Your task to perform on an android device: When is my next appointment? Image 0: 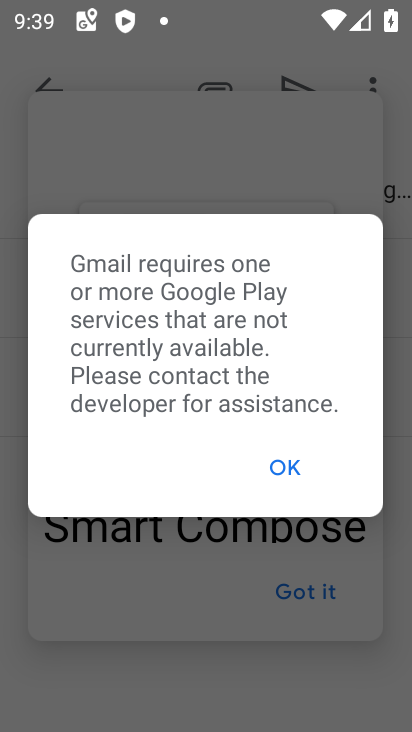
Step 0: press home button
Your task to perform on an android device: When is my next appointment? Image 1: 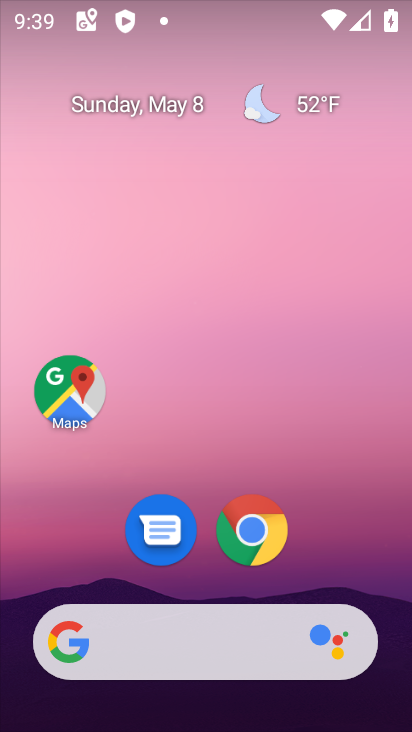
Step 1: drag from (370, 586) to (371, 90)
Your task to perform on an android device: When is my next appointment? Image 2: 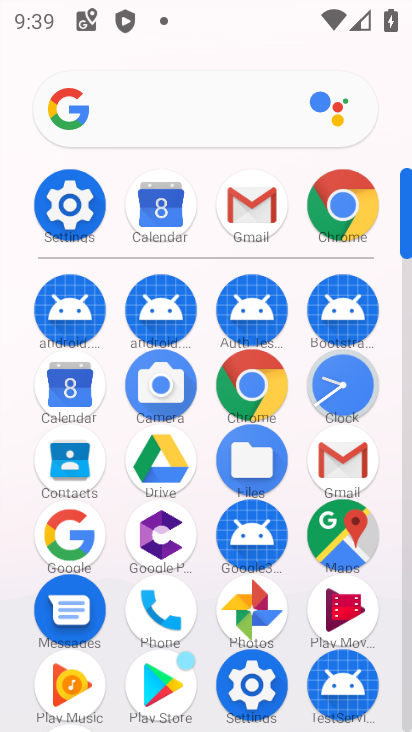
Step 2: click (63, 387)
Your task to perform on an android device: When is my next appointment? Image 3: 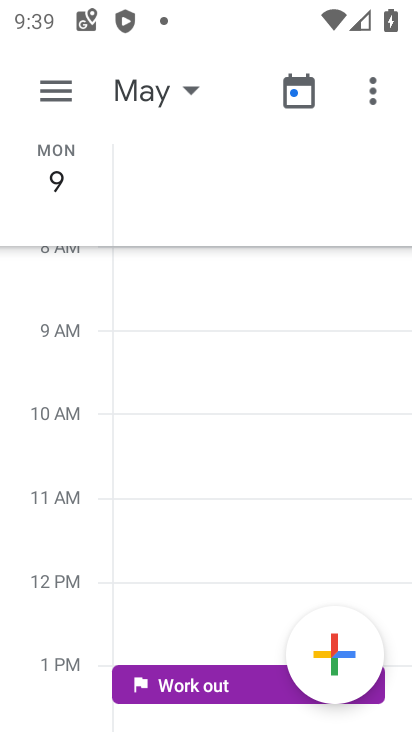
Step 3: click (141, 87)
Your task to perform on an android device: When is my next appointment? Image 4: 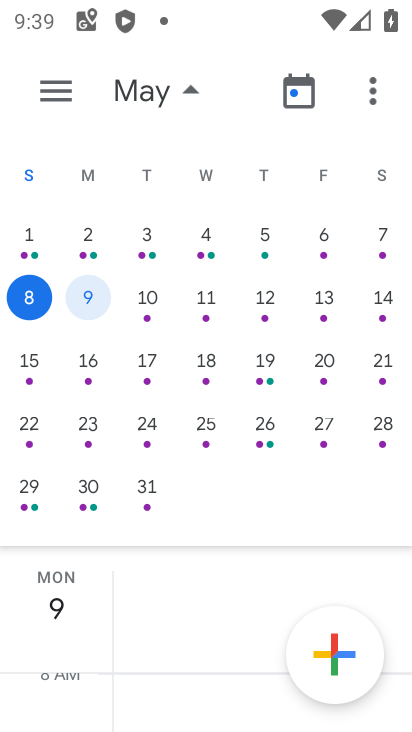
Step 4: drag from (137, 641) to (184, 383)
Your task to perform on an android device: When is my next appointment? Image 5: 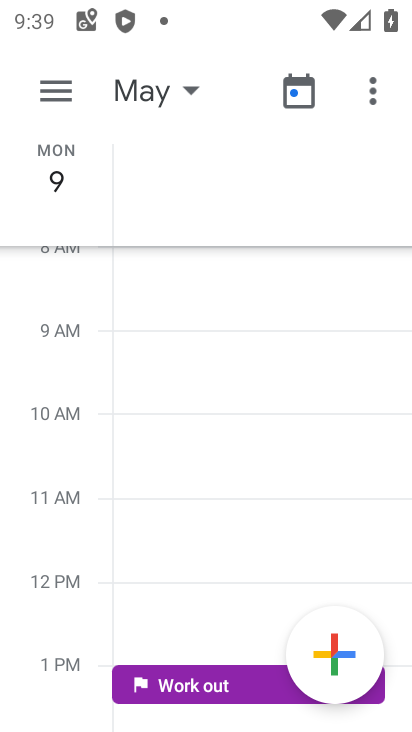
Step 5: drag from (154, 623) to (189, 382)
Your task to perform on an android device: When is my next appointment? Image 6: 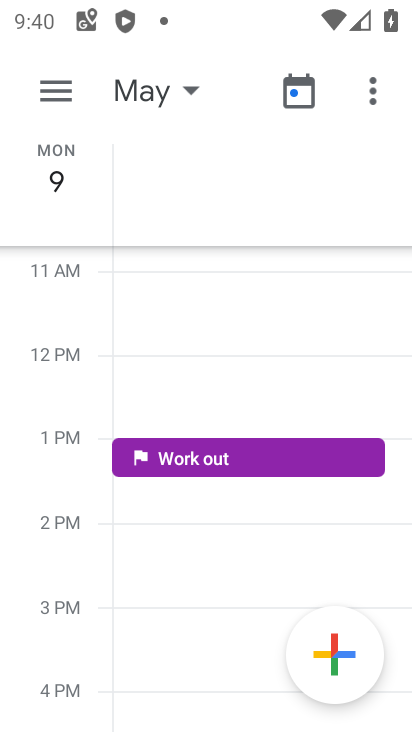
Step 6: drag from (138, 586) to (177, 328)
Your task to perform on an android device: When is my next appointment? Image 7: 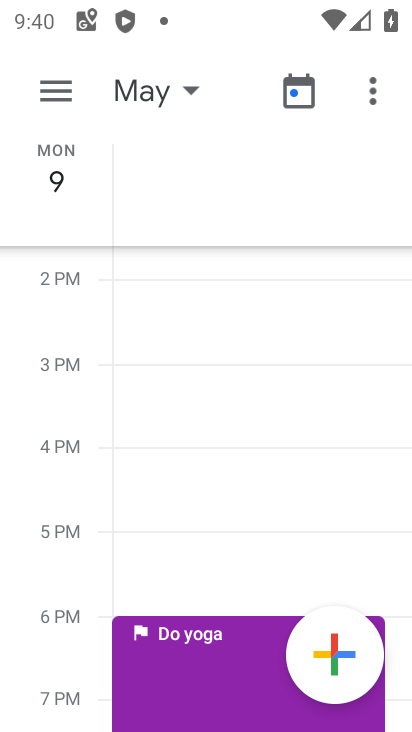
Step 7: drag from (129, 612) to (172, 350)
Your task to perform on an android device: When is my next appointment? Image 8: 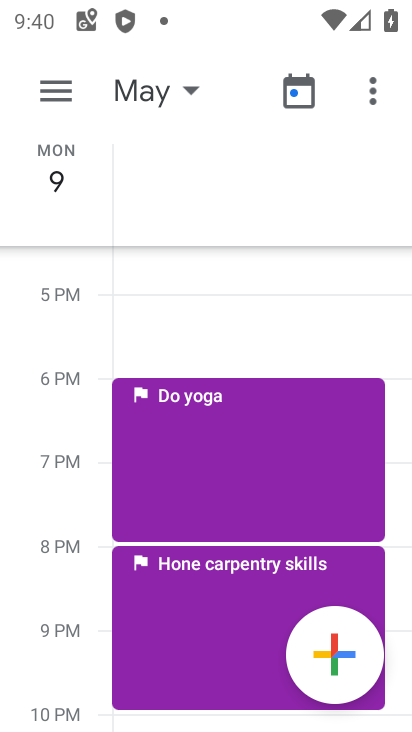
Step 8: drag from (142, 670) to (192, 289)
Your task to perform on an android device: When is my next appointment? Image 9: 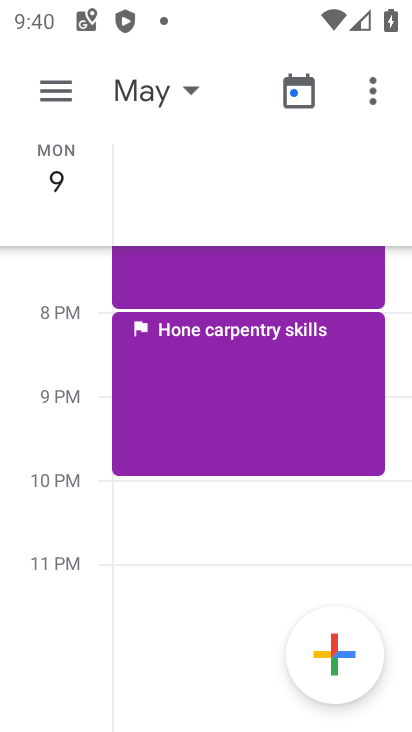
Step 9: drag from (192, 608) to (202, 402)
Your task to perform on an android device: When is my next appointment? Image 10: 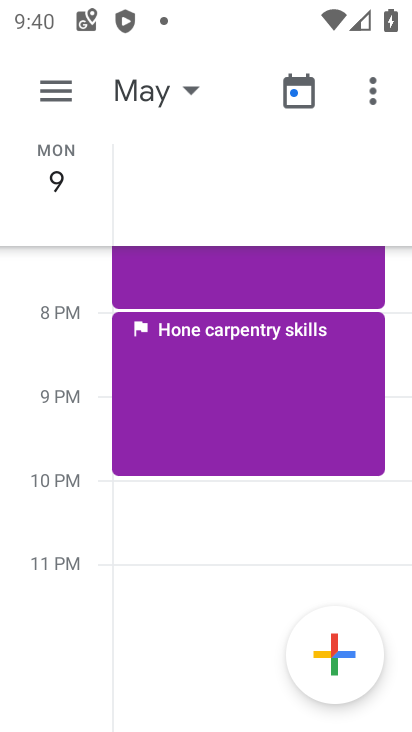
Step 10: drag from (171, 659) to (204, 374)
Your task to perform on an android device: When is my next appointment? Image 11: 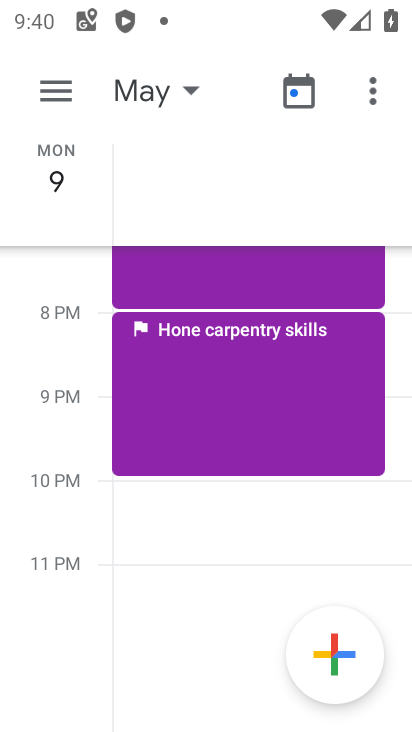
Step 11: drag from (175, 668) to (185, 374)
Your task to perform on an android device: When is my next appointment? Image 12: 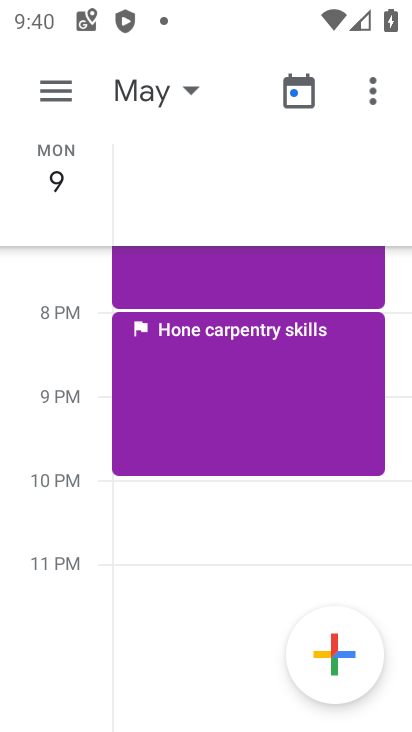
Step 12: click (135, 96)
Your task to perform on an android device: When is my next appointment? Image 13: 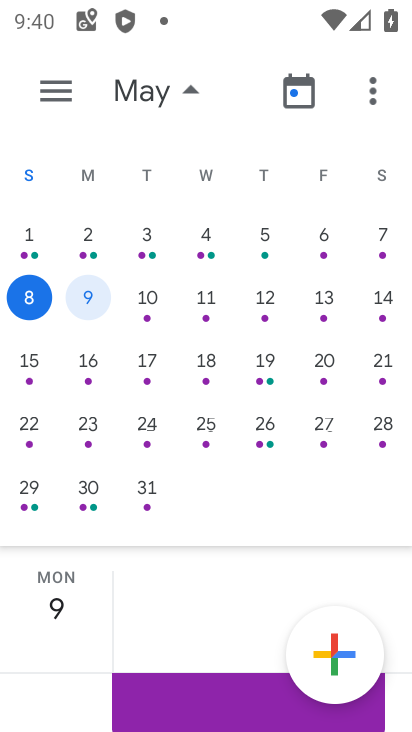
Step 13: click (43, 92)
Your task to perform on an android device: When is my next appointment? Image 14: 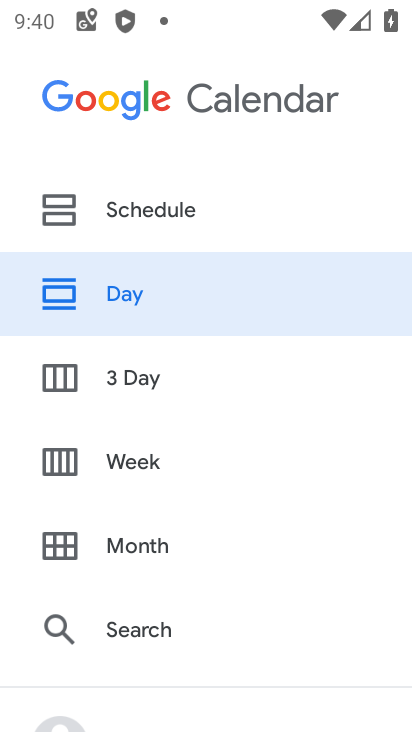
Step 14: click (221, 216)
Your task to perform on an android device: When is my next appointment? Image 15: 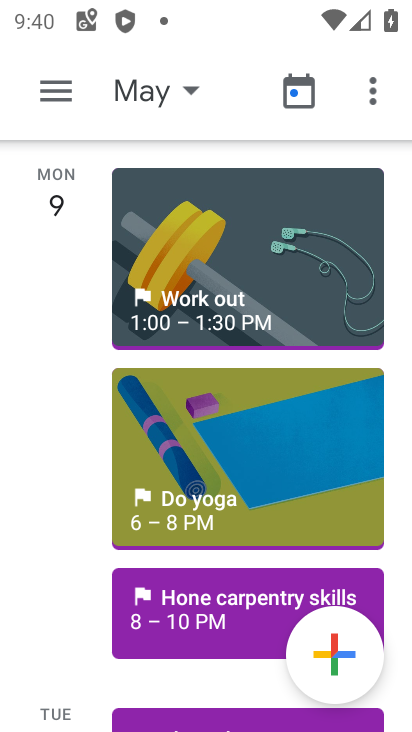
Step 15: task complete